Your task to perform on an android device: Open calendar and show me the first week of next month Image 0: 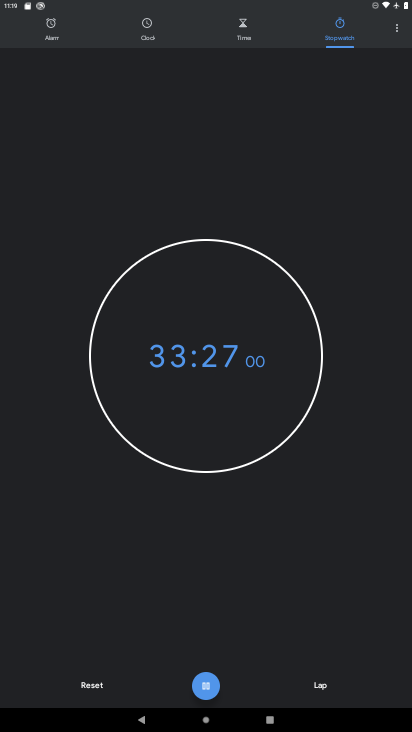
Step 0: press home button
Your task to perform on an android device: Open calendar and show me the first week of next month Image 1: 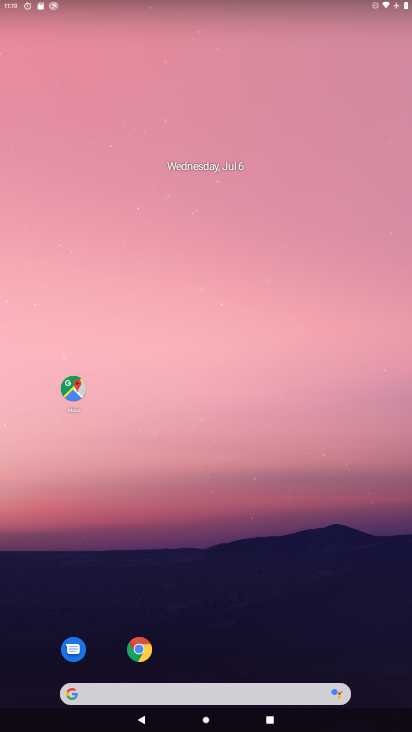
Step 1: drag from (397, 707) to (345, 99)
Your task to perform on an android device: Open calendar and show me the first week of next month Image 2: 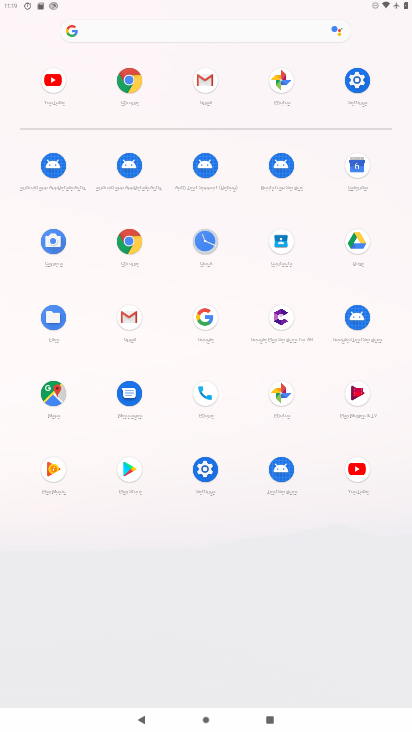
Step 2: click (360, 94)
Your task to perform on an android device: Open calendar and show me the first week of next month Image 3: 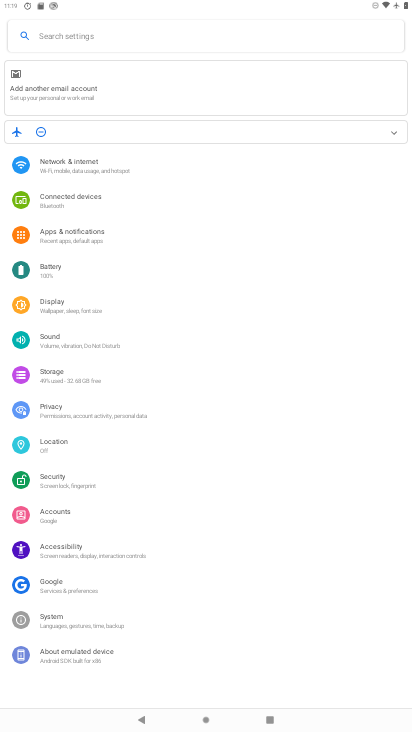
Step 3: press back button
Your task to perform on an android device: Open calendar and show me the first week of next month Image 4: 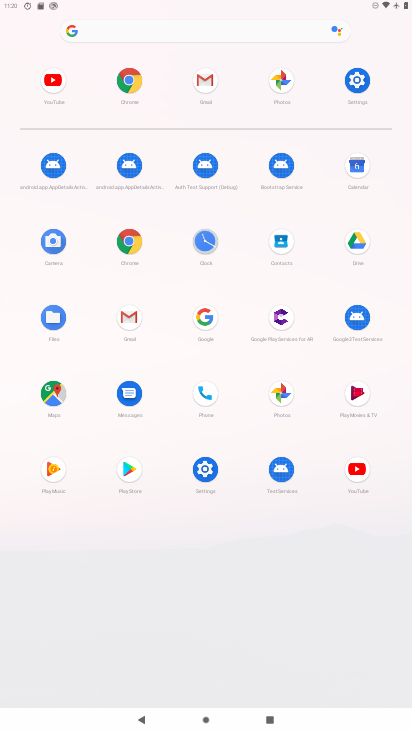
Step 4: click (352, 175)
Your task to perform on an android device: Open calendar and show me the first week of next month Image 5: 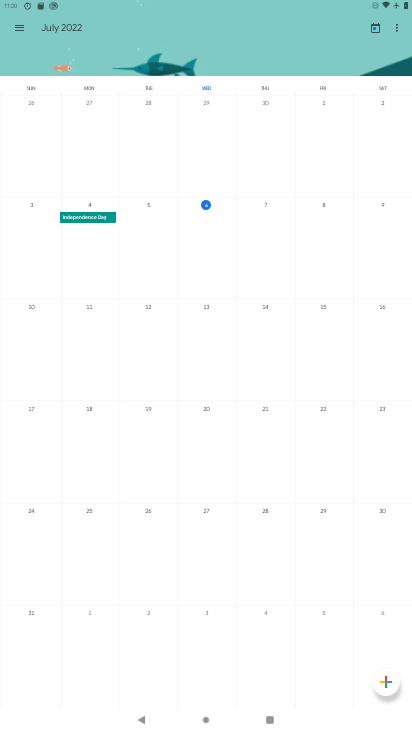
Step 5: drag from (385, 269) to (28, 282)
Your task to perform on an android device: Open calendar and show me the first week of next month Image 6: 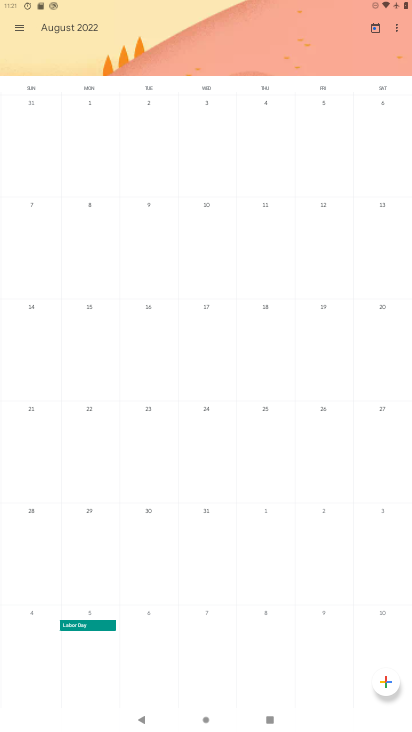
Step 6: click (325, 103)
Your task to perform on an android device: Open calendar and show me the first week of next month Image 7: 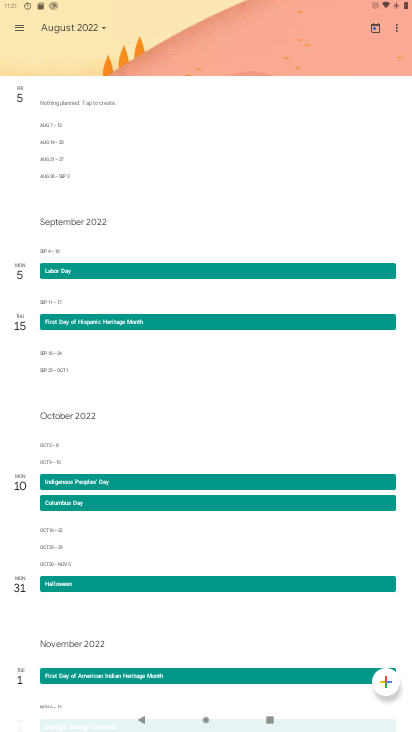
Step 7: task complete